Your task to perform on an android device: Add acer predator to the cart on target.com, then select checkout. Image 0: 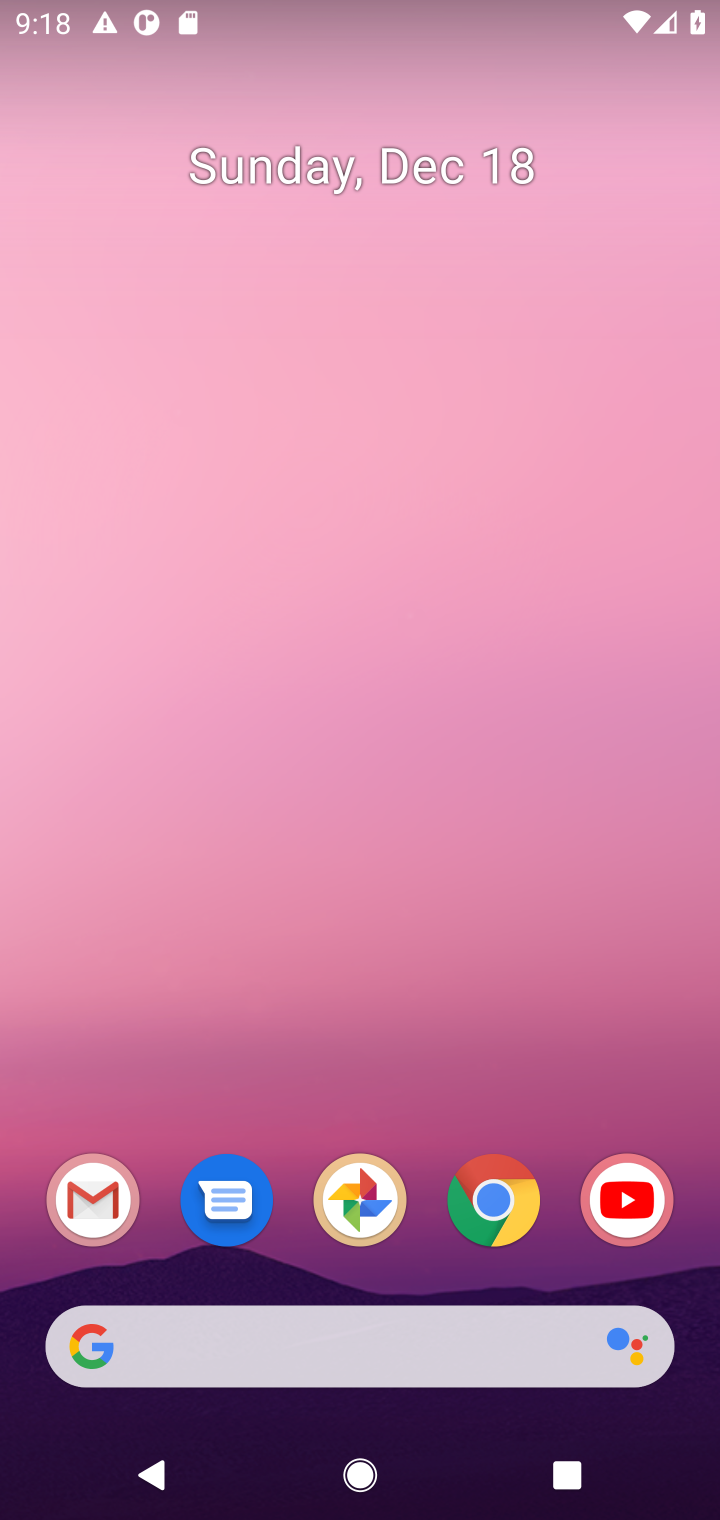
Step 0: click (498, 1205)
Your task to perform on an android device: Add acer predator to the cart on target.com, then select checkout. Image 1: 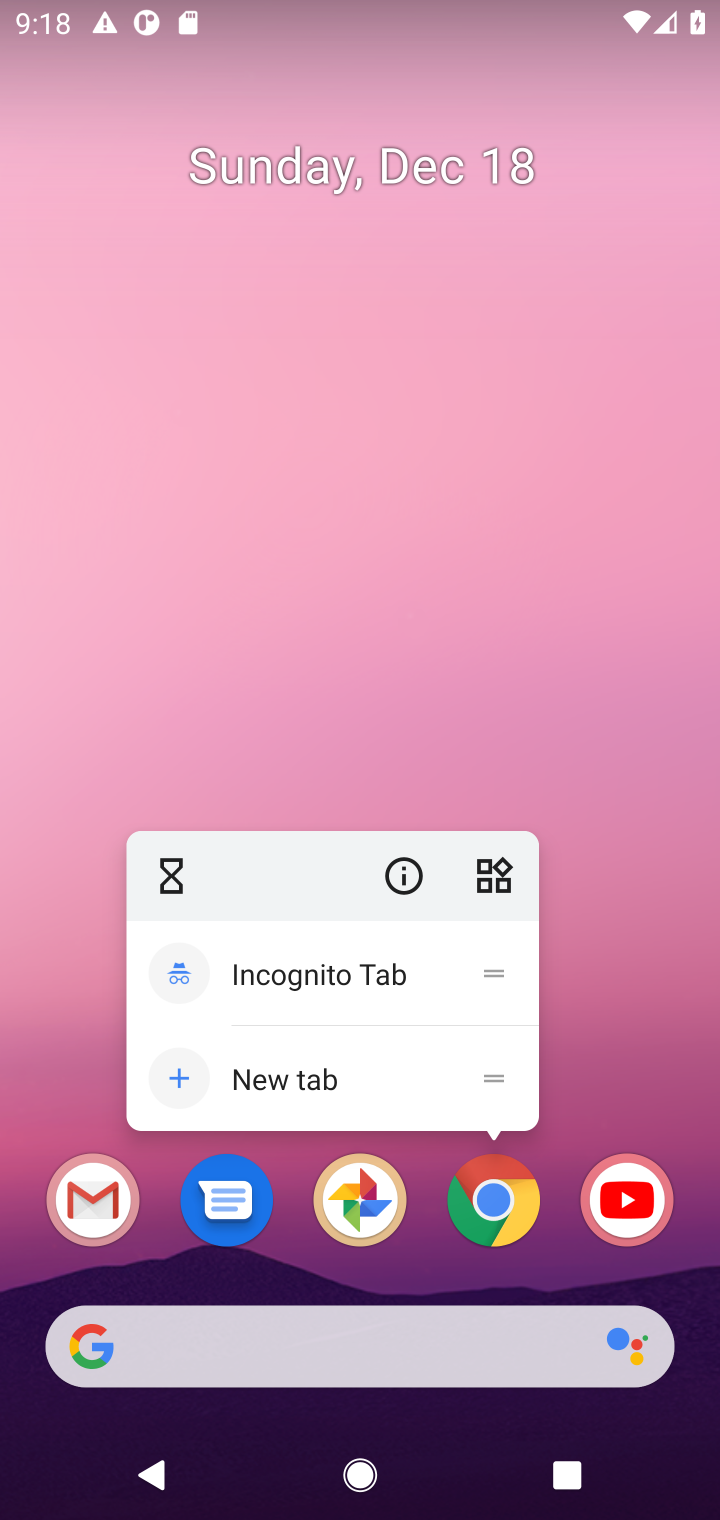
Step 1: click (498, 1205)
Your task to perform on an android device: Add acer predator to the cart on target.com, then select checkout. Image 2: 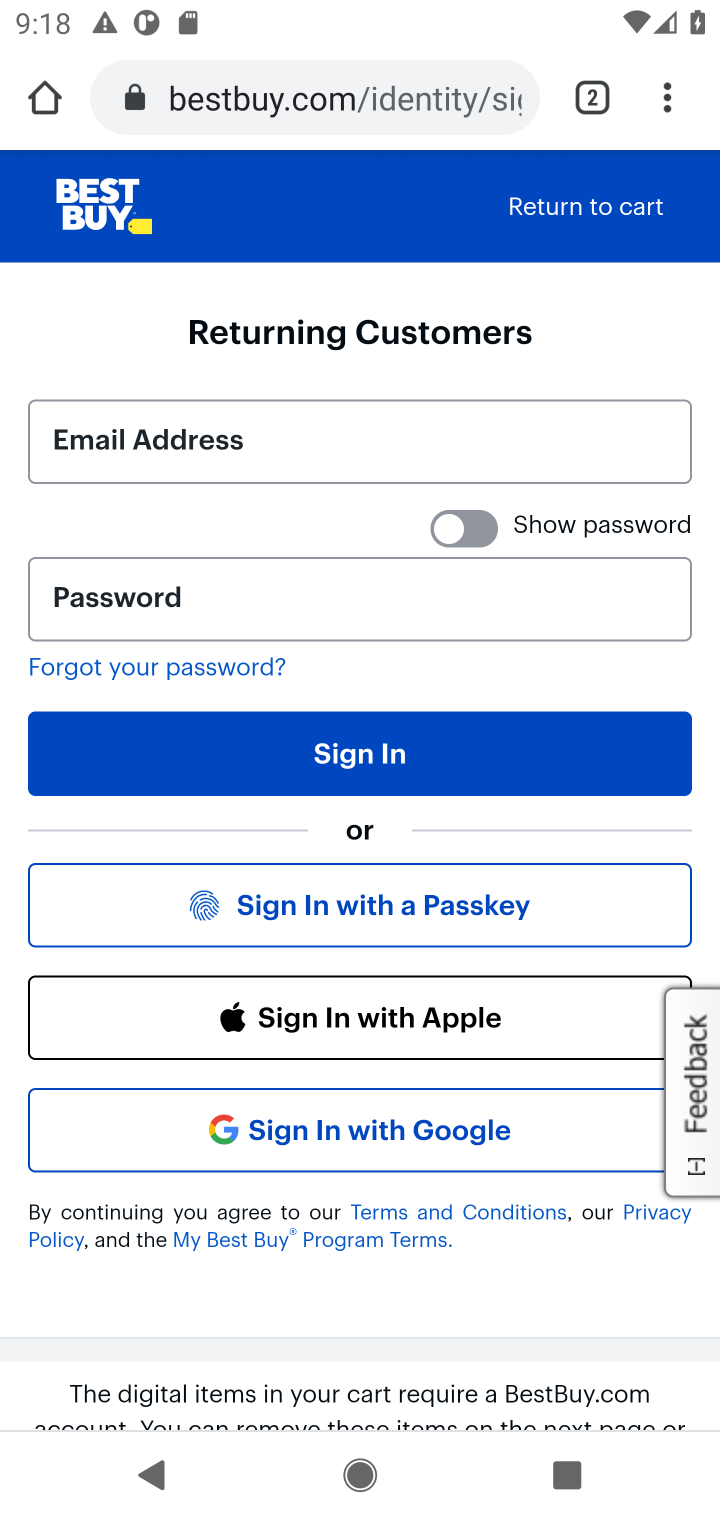
Step 2: click (310, 93)
Your task to perform on an android device: Add acer predator to the cart on target.com, then select checkout. Image 3: 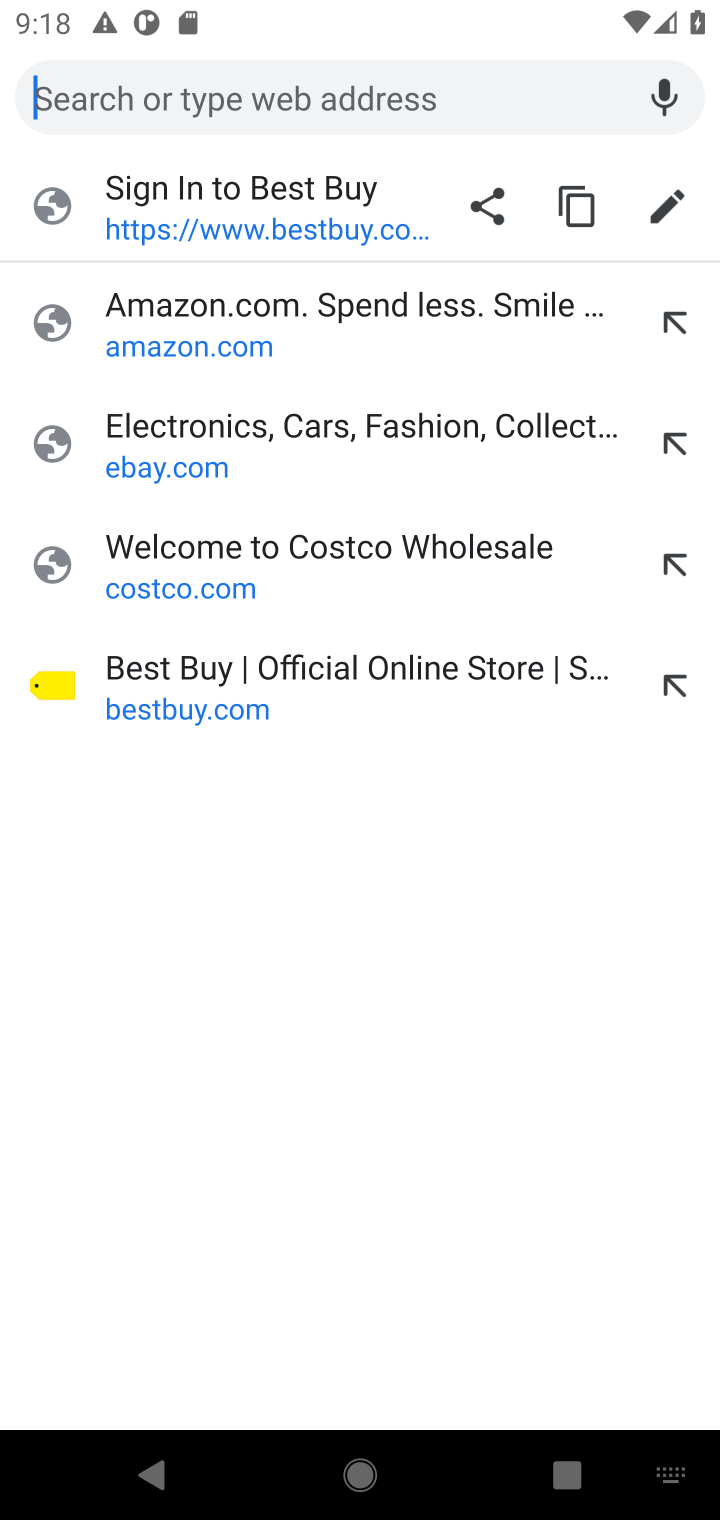
Step 3: type "target.com"
Your task to perform on an android device: Add acer predator to the cart on target.com, then select checkout. Image 4: 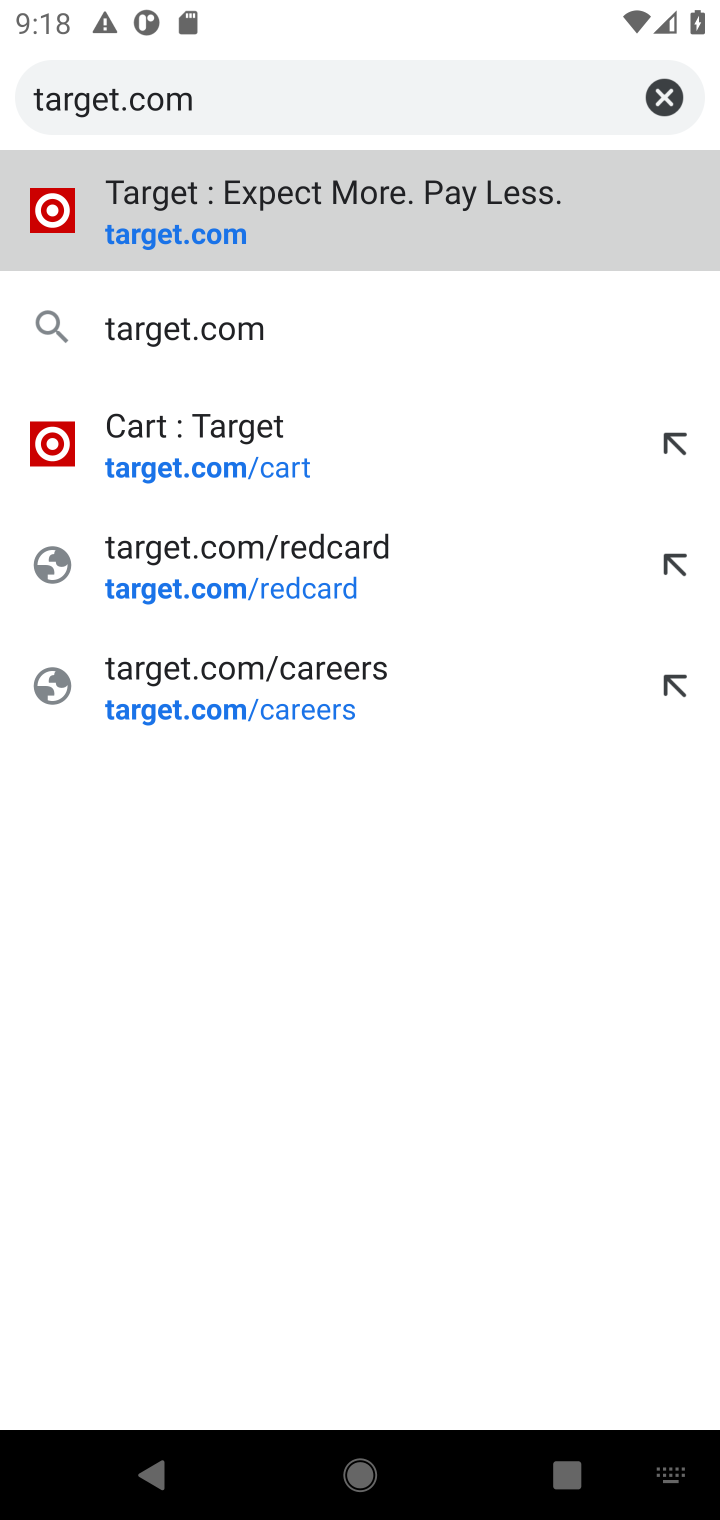
Step 4: click (164, 218)
Your task to perform on an android device: Add acer predator to the cart on target.com, then select checkout. Image 5: 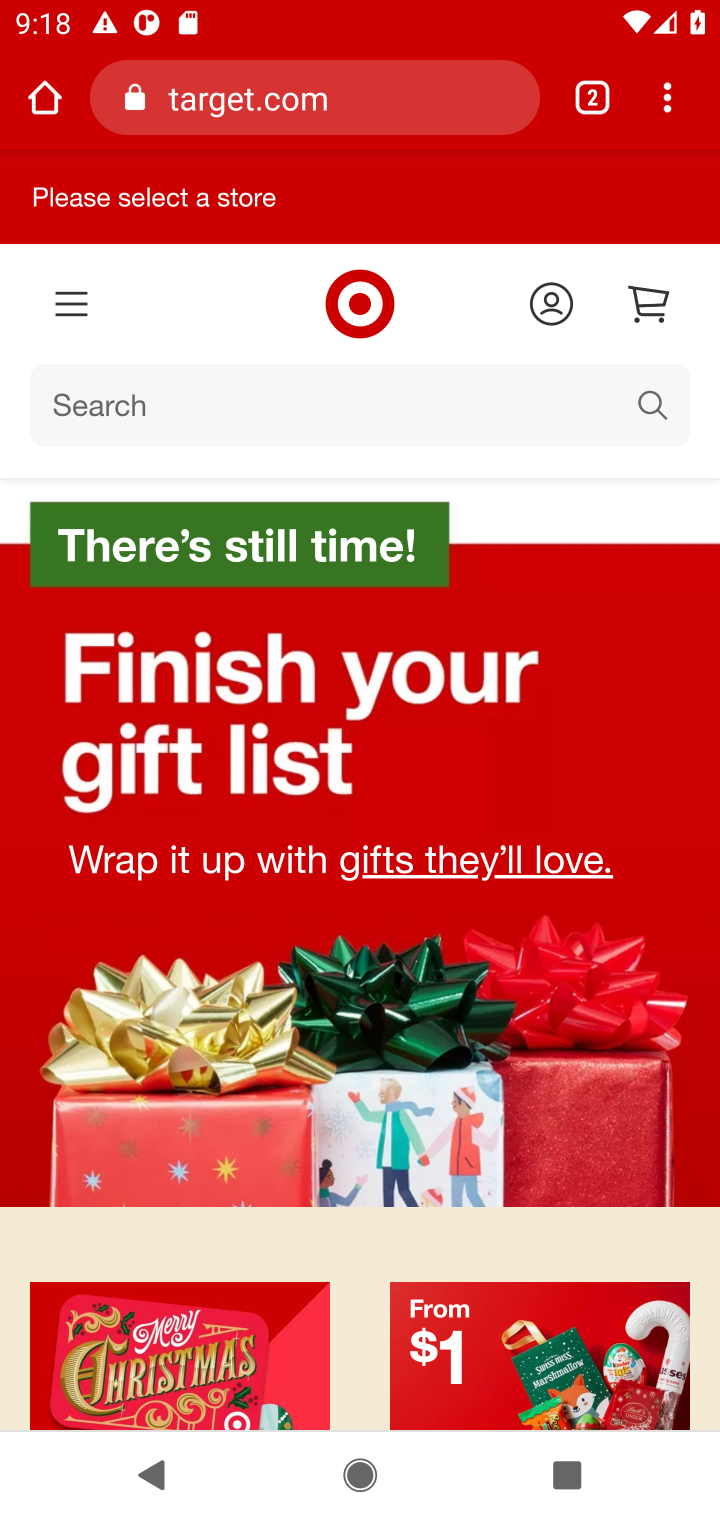
Step 5: click (68, 418)
Your task to perform on an android device: Add acer predator to the cart on target.com, then select checkout. Image 6: 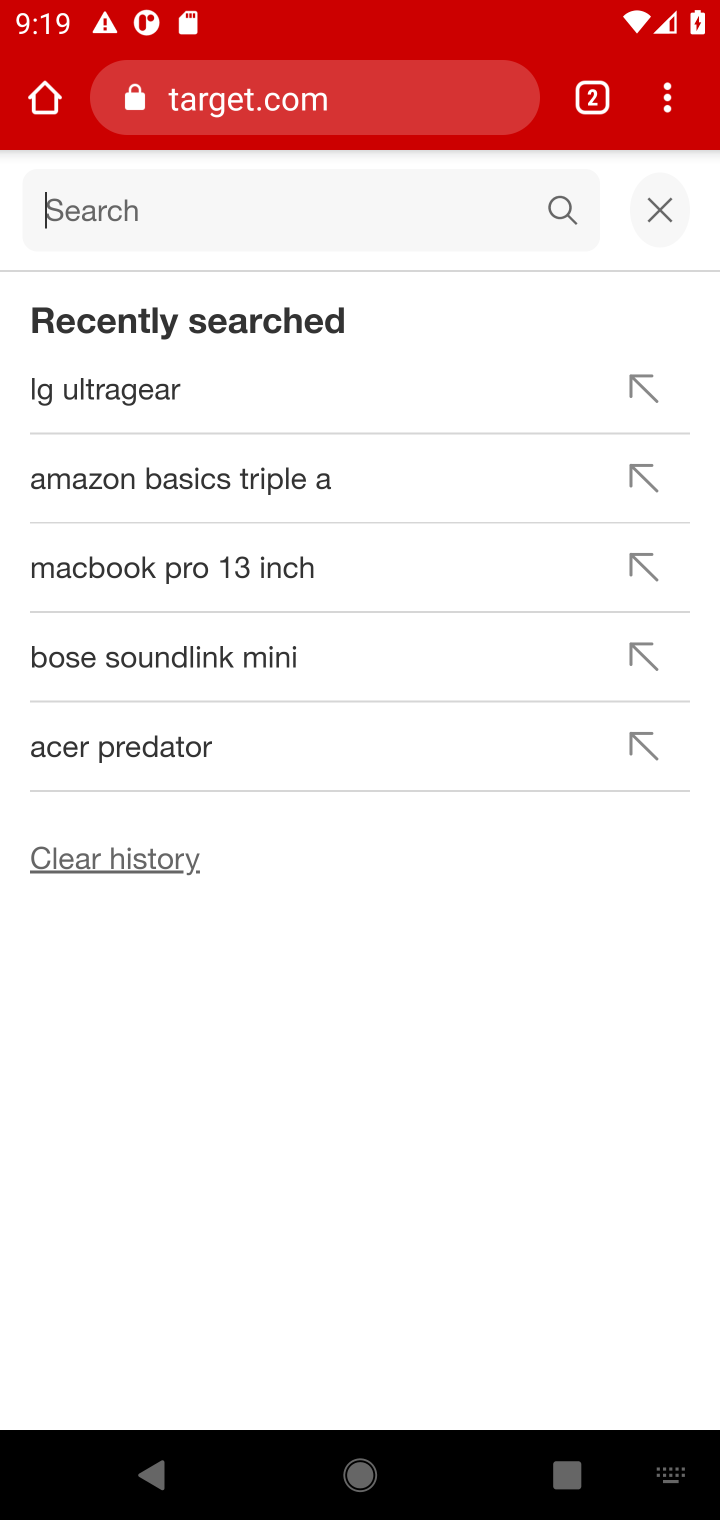
Step 6: type "acer predator"
Your task to perform on an android device: Add acer predator to the cart on target.com, then select checkout. Image 7: 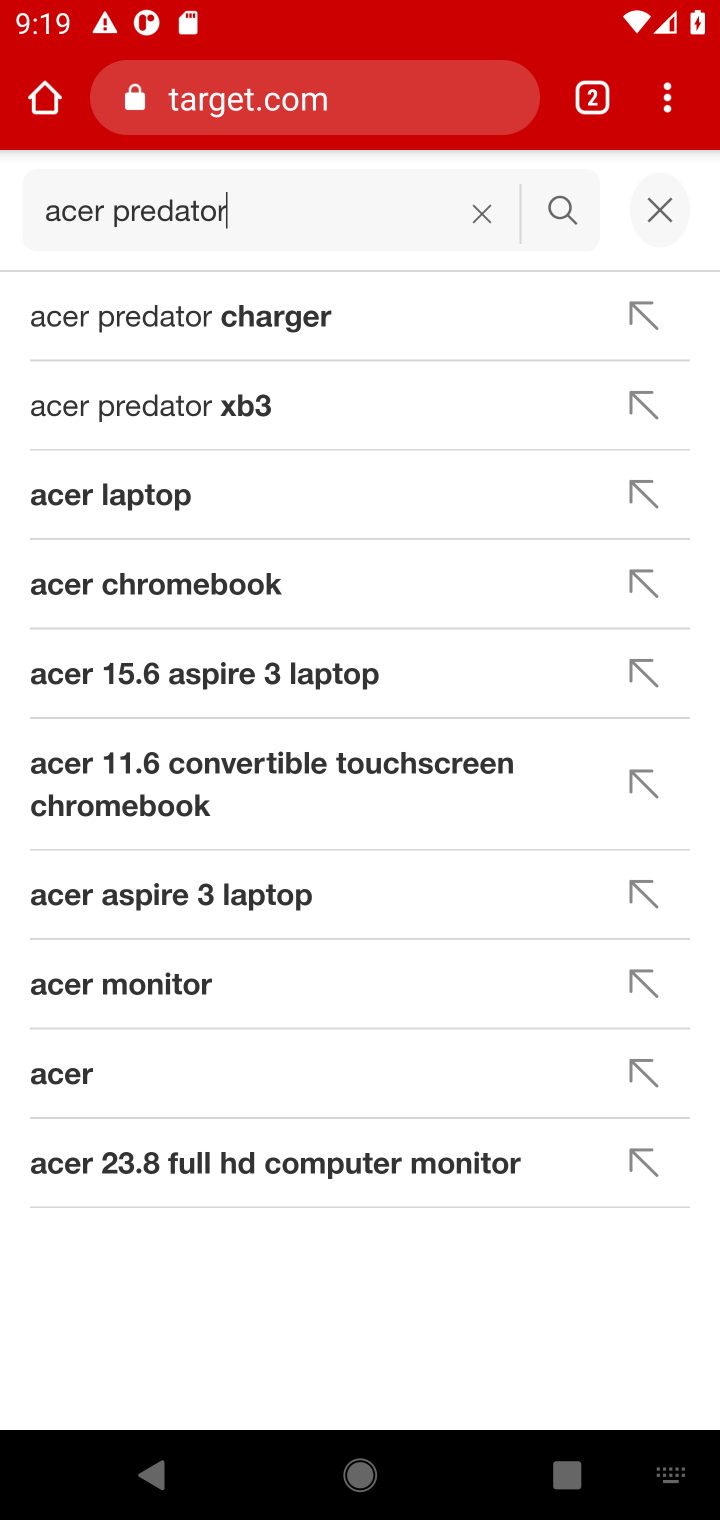
Step 7: click (554, 207)
Your task to perform on an android device: Add acer predator to the cart on target.com, then select checkout. Image 8: 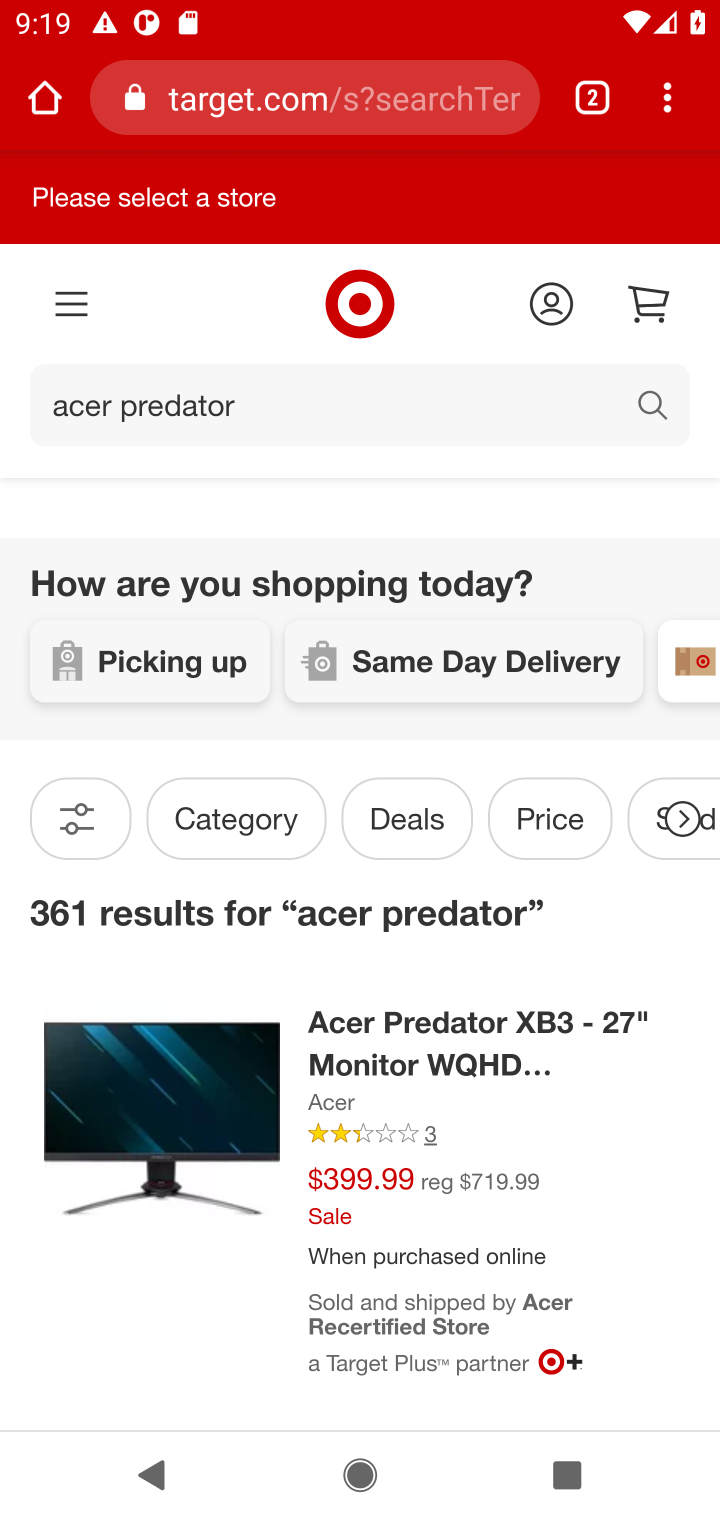
Step 8: drag from (214, 1072) to (232, 700)
Your task to perform on an android device: Add acer predator to the cart on target.com, then select checkout. Image 9: 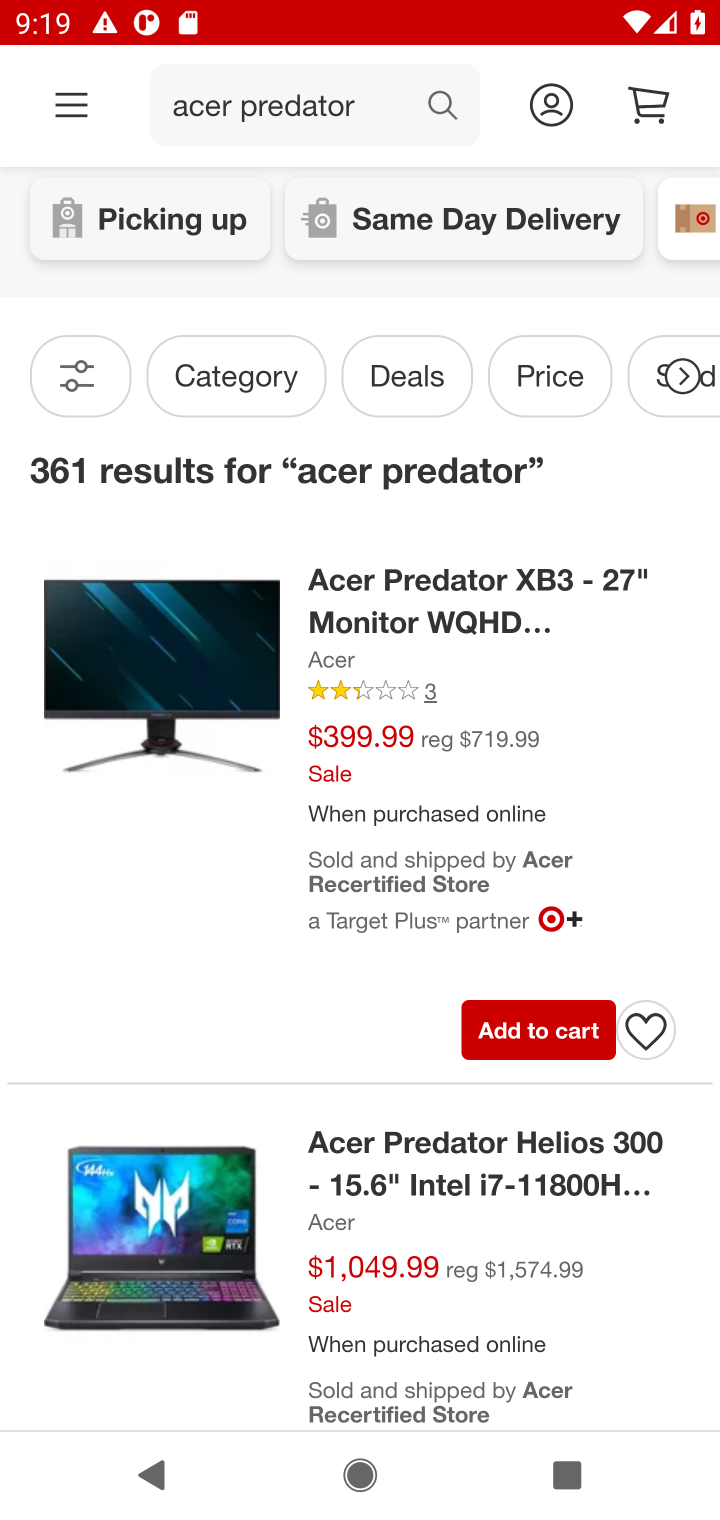
Step 9: click (519, 1001)
Your task to perform on an android device: Add acer predator to the cart on target.com, then select checkout. Image 10: 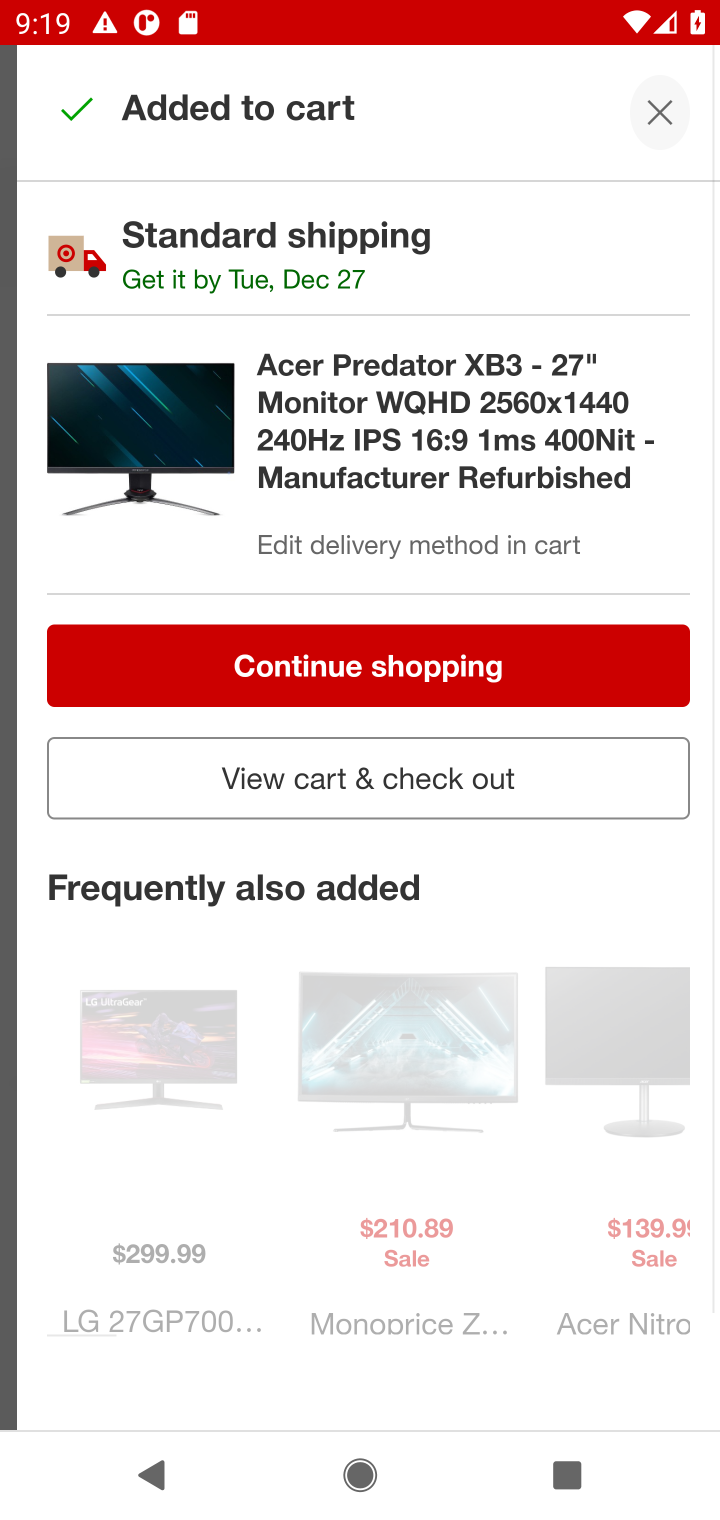
Step 10: click (668, 93)
Your task to perform on an android device: Add acer predator to the cart on target.com, then select checkout. Image 11: 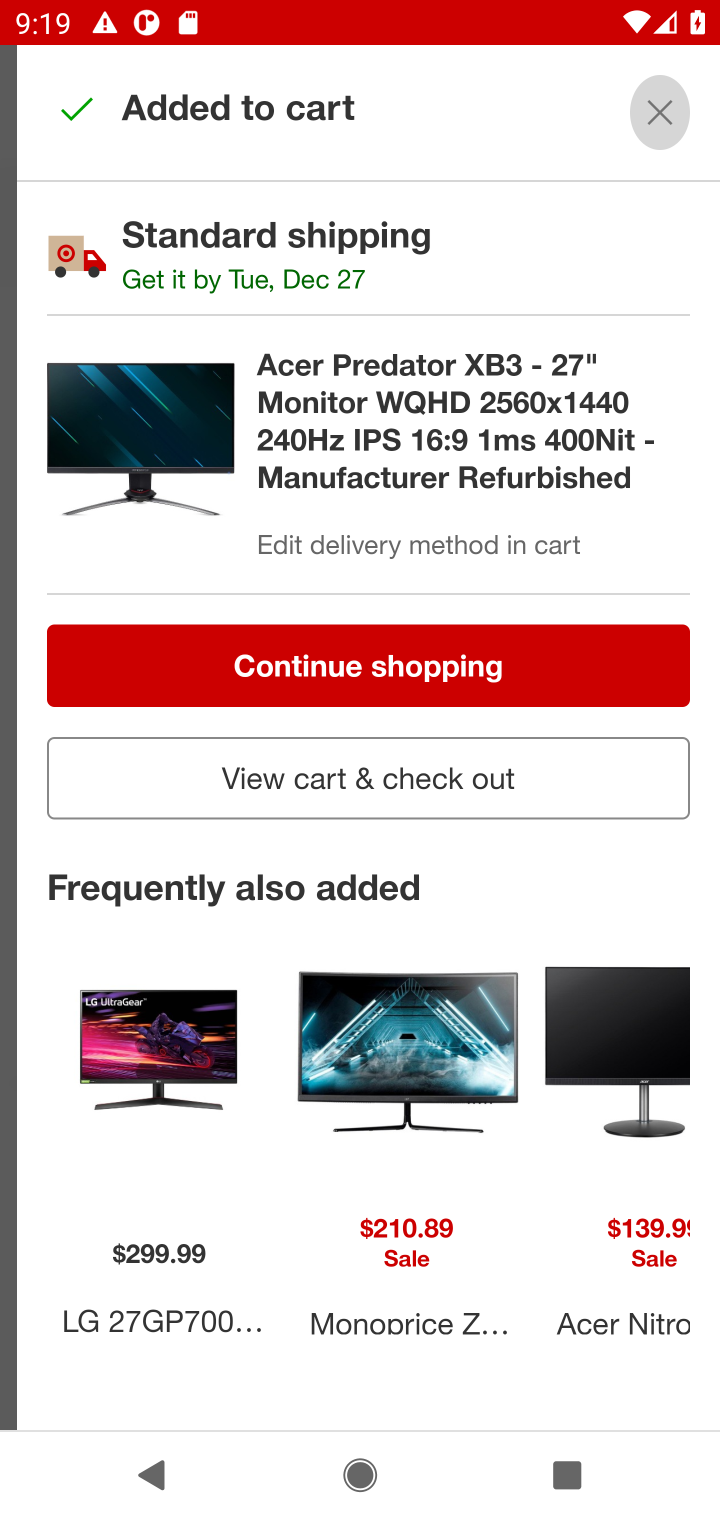
Step 11: click (326, 763)
Your task to perform on an android device: Add acer predator to the cart on target.com, then select checkout. Image 12: 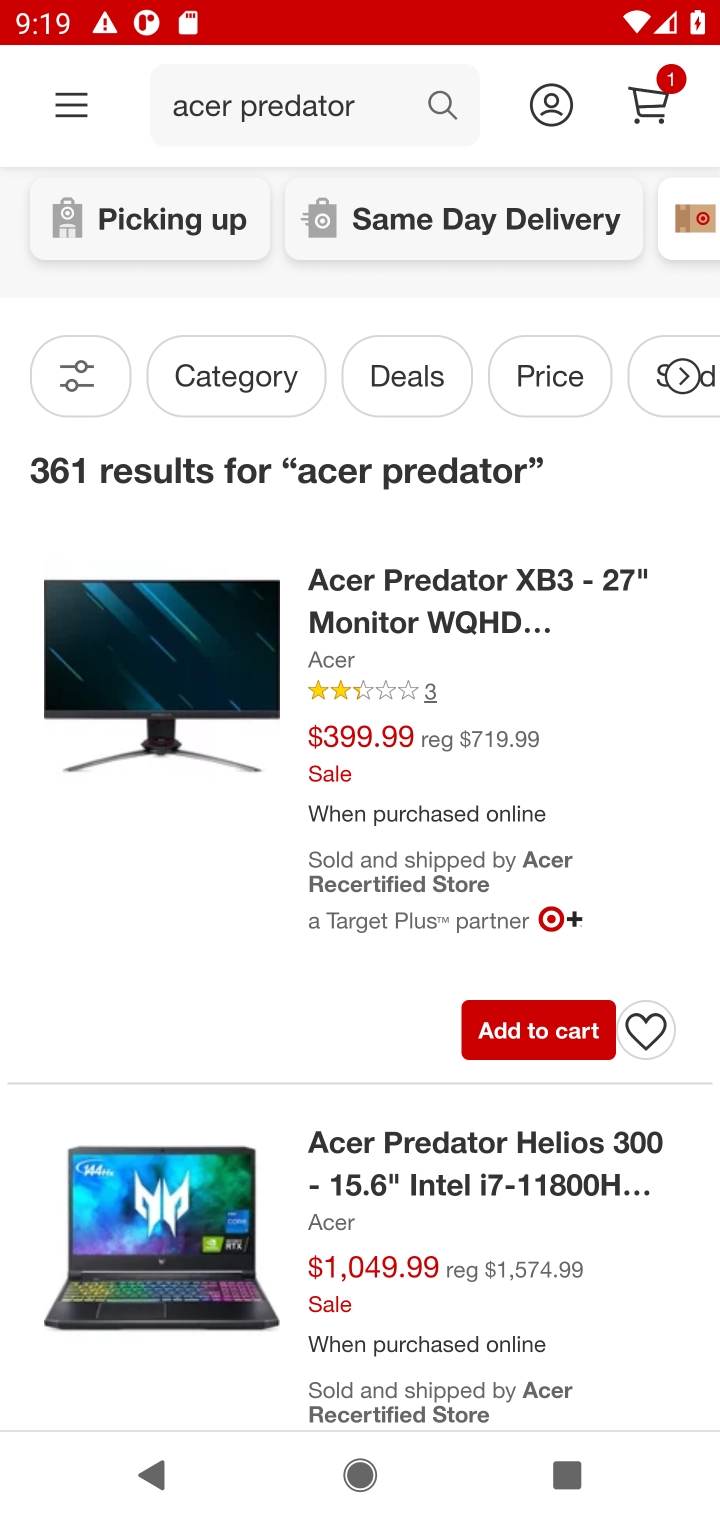
Step 12: click (642, 111)
Your task to perform on an android device: Add acer predator to the cart on target.com, then select checkout. Image 13: 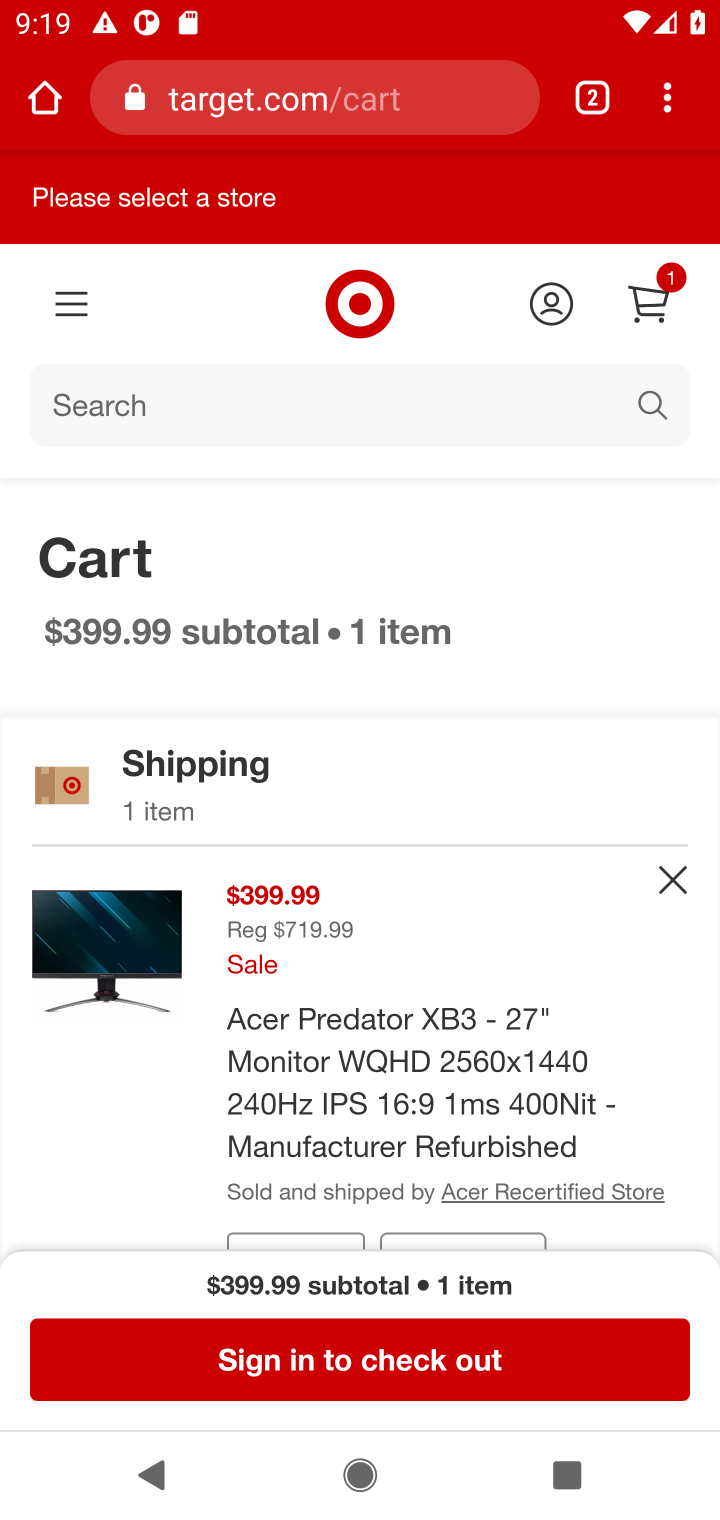
Step 13: drag from (349, 1020) to (327, 612)
Your task to perform on an android device: Add acer predator to the cart on target.com, then select checkout. Image 14: 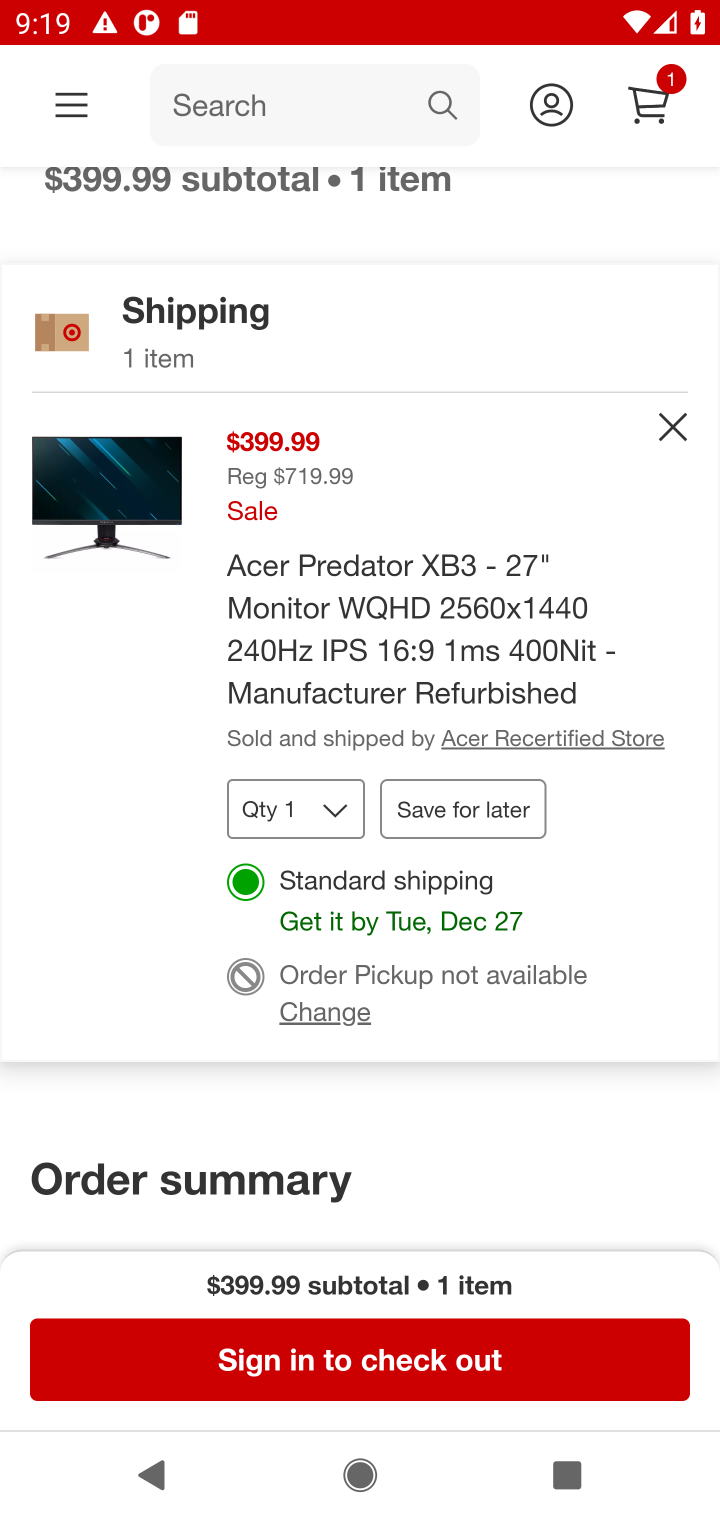
Step 14: click (339, 1363)
Your task to perform on an android device: Add acer predator to the cart on target.com, then select checkout. Image 15: 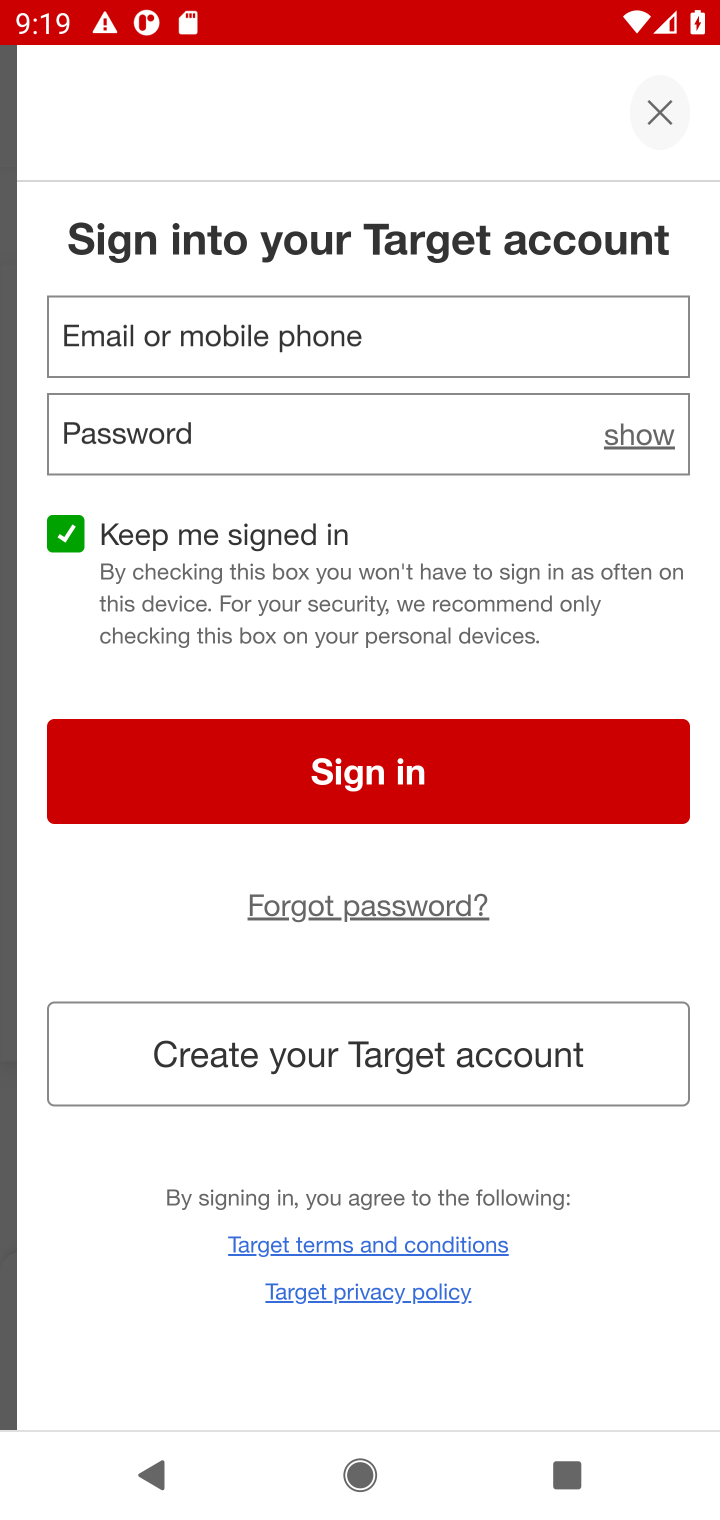
Step 15: task complete